Your task to perform on an android device: Search for "lg ultragear" on target.com, select the first entry, and add it to the cart. Image 0: 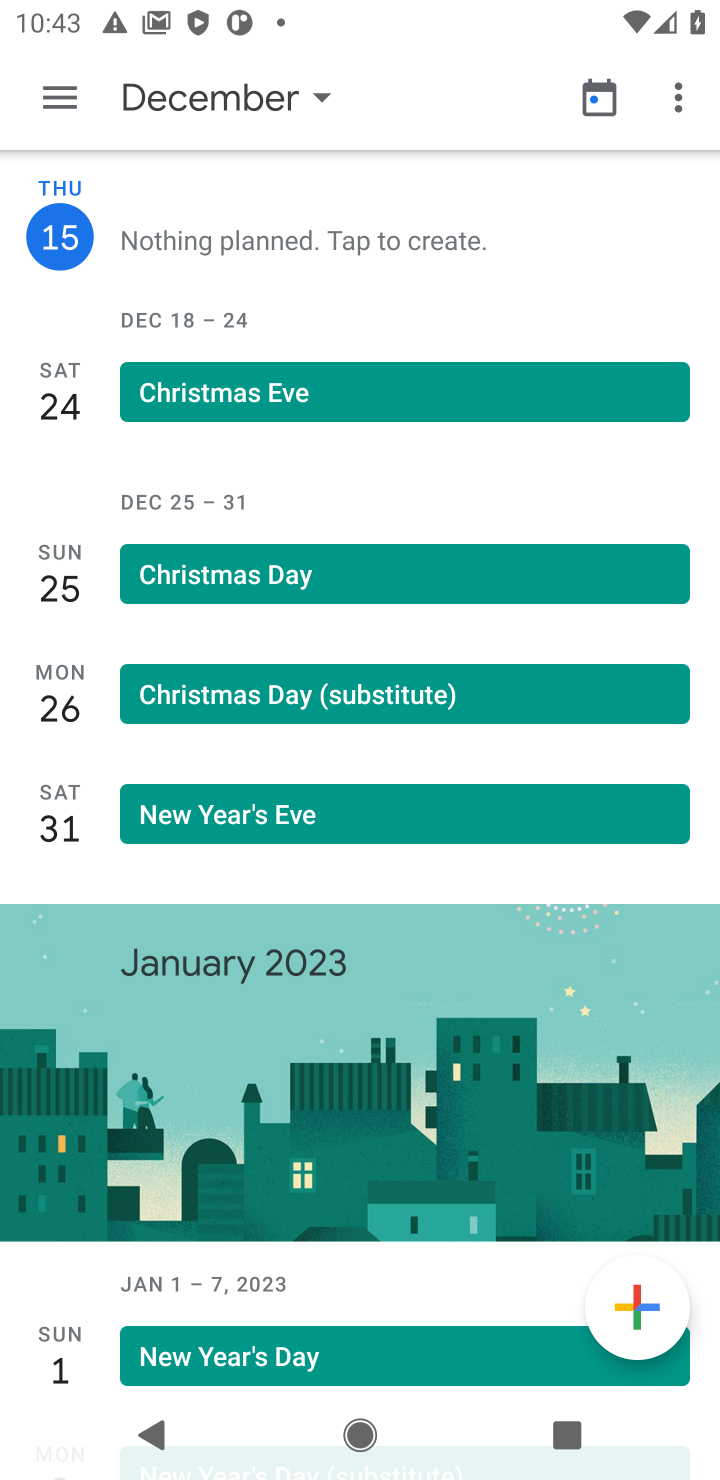
Step 0: press home button
Your task to perform on an android device: Search for "lg ultragear" on target.com, select the first entry, and add it to the cart. Image 1: 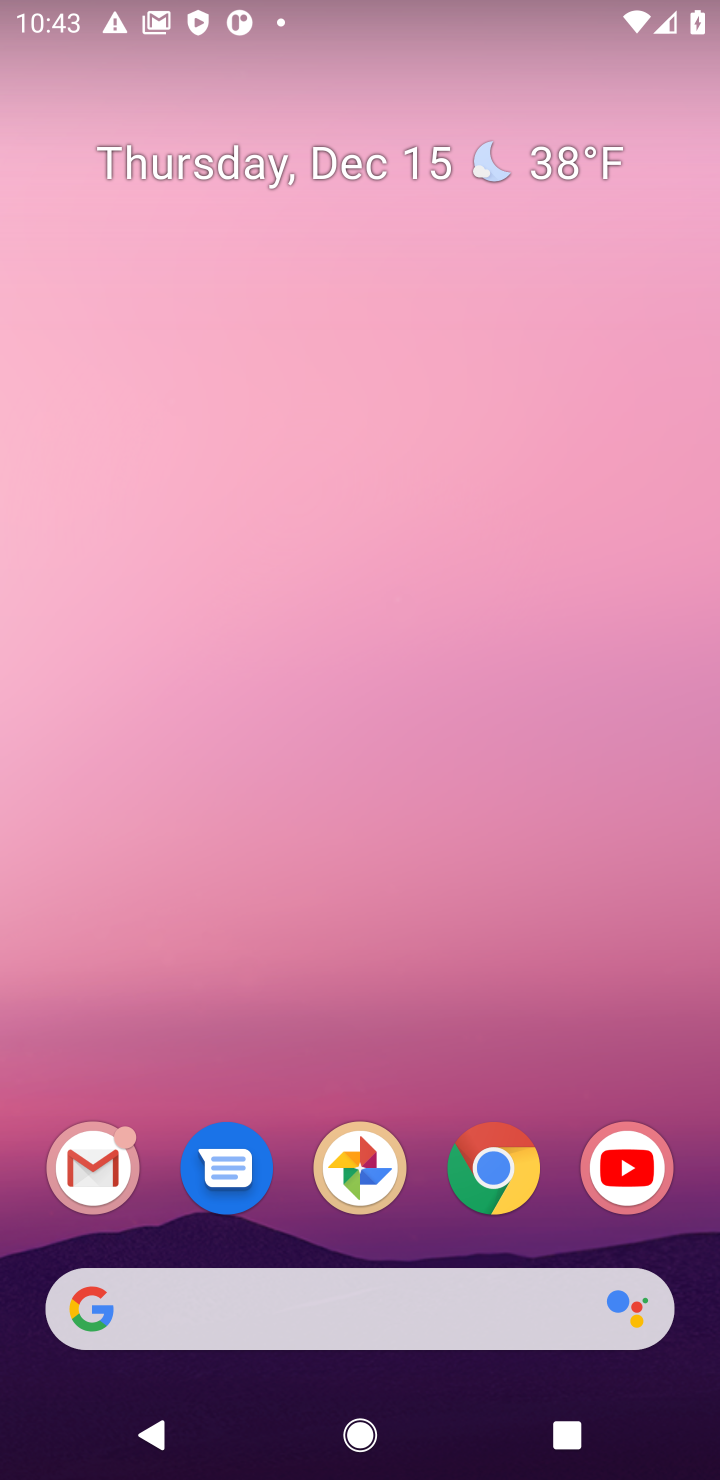
Step 1: click (478, 1159)
Your task to perform on an android device: Search for "lg ultragear" on target.com, select the first entry, and add it to the cart. Image 2: 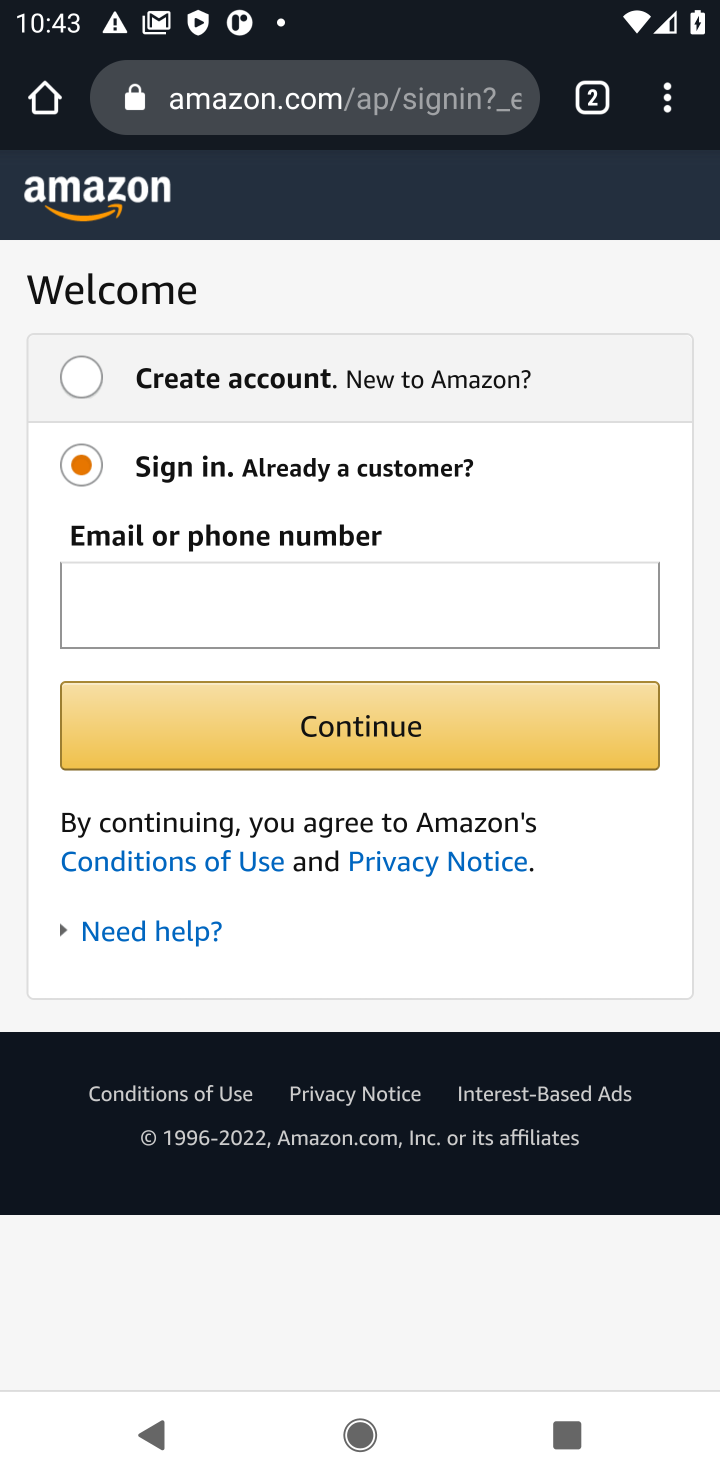
Step 2: click (356, 97)
Your task to perform on an android device: Search for "lg ultragear" on target.com, select the first entry, and add it to the cart. Image 3: 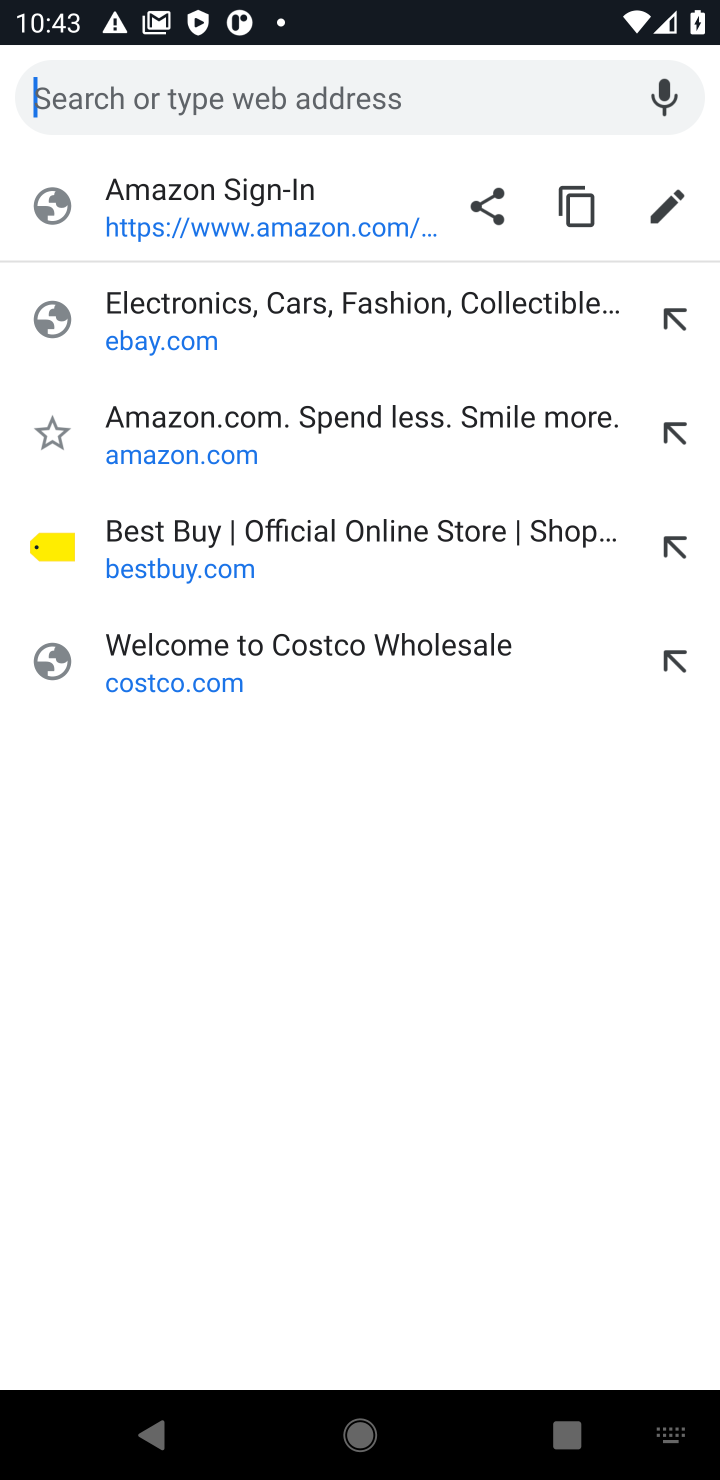
Step 3: type "target"
Your task to perform on an android device: Search for "lg ultragear" on target.com, select the first entry, and add it to the cart. Image 4: 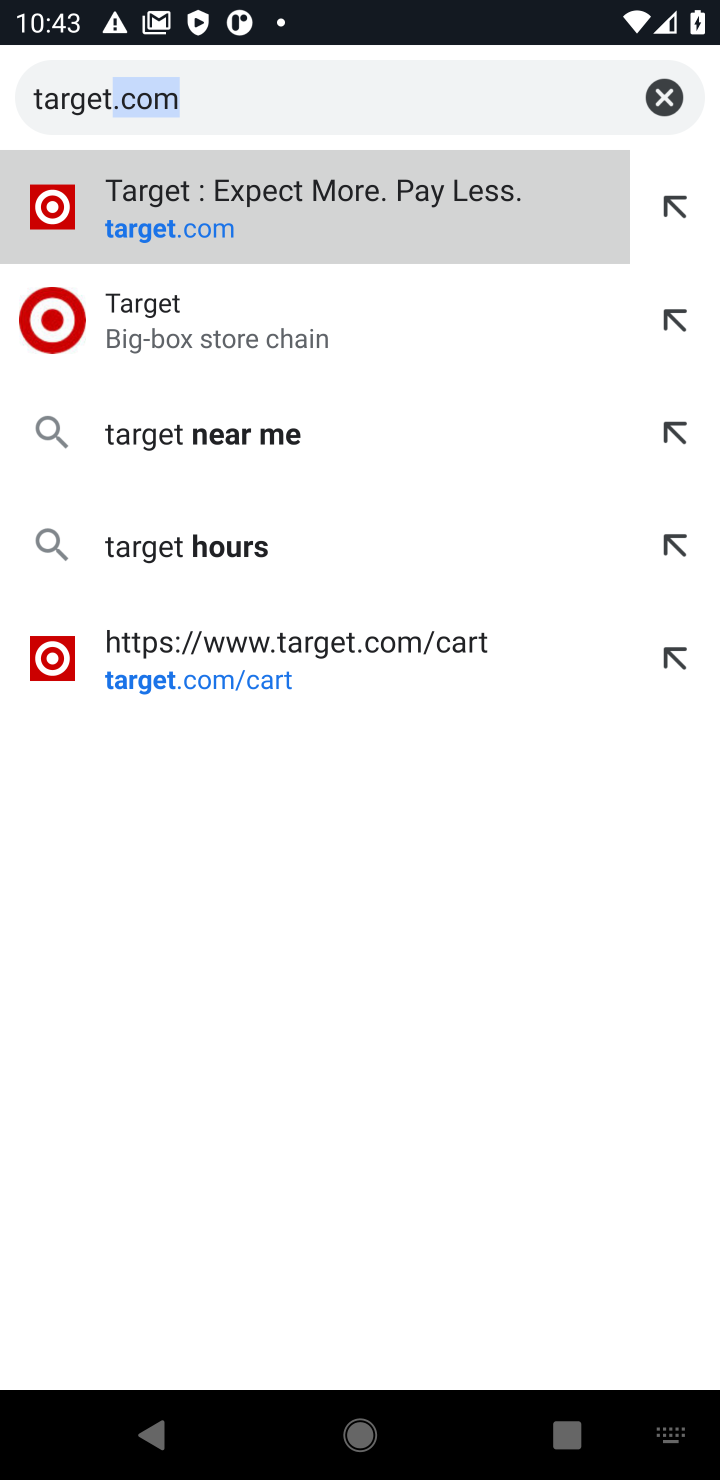
Step 4: click (245, 231)
Your task to perform on an android device: Search for "lg ultragear" on target.com, select the first entry, and add it to the cart. Image 5: 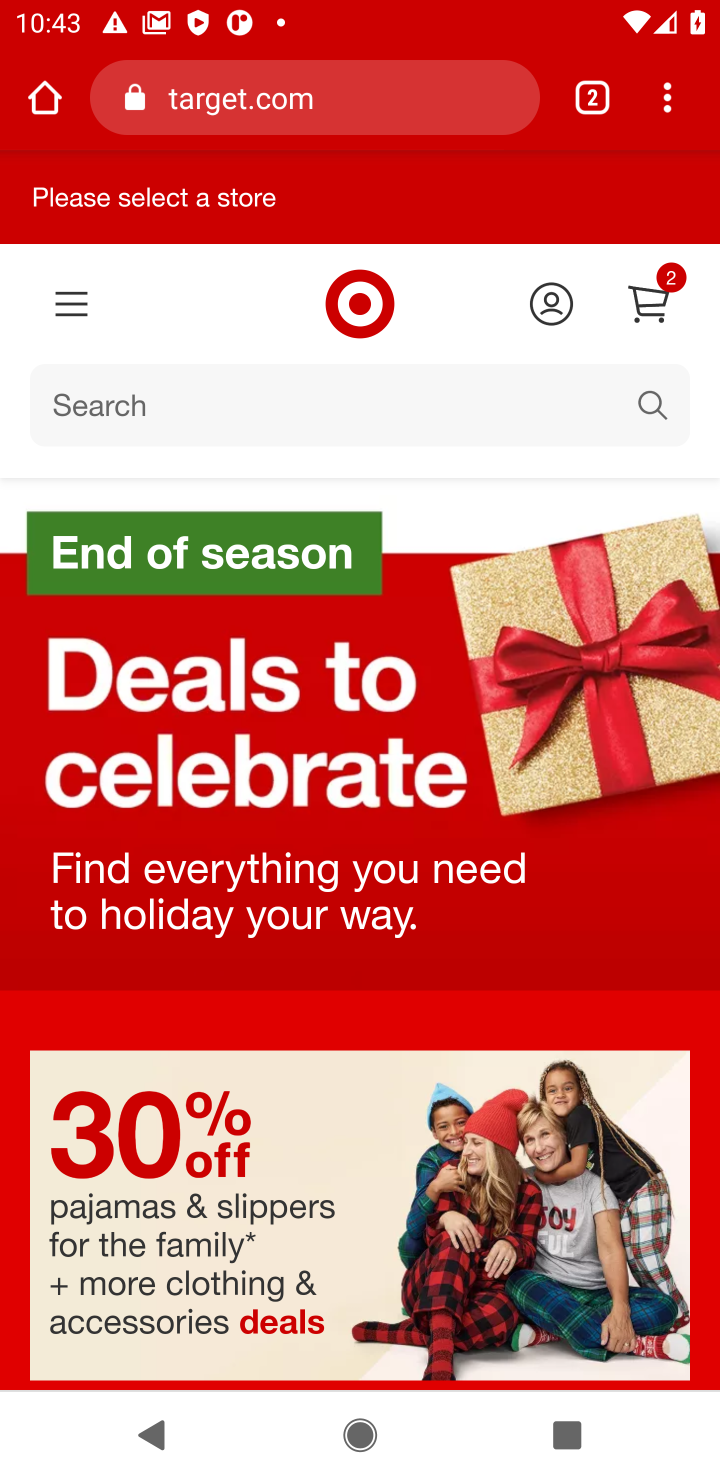
Step 5: click (376, 420)
Your task to perform on an android device: Search for "lg ultragear" on target.com, select the first entry, and add it to the cart. Image 6: 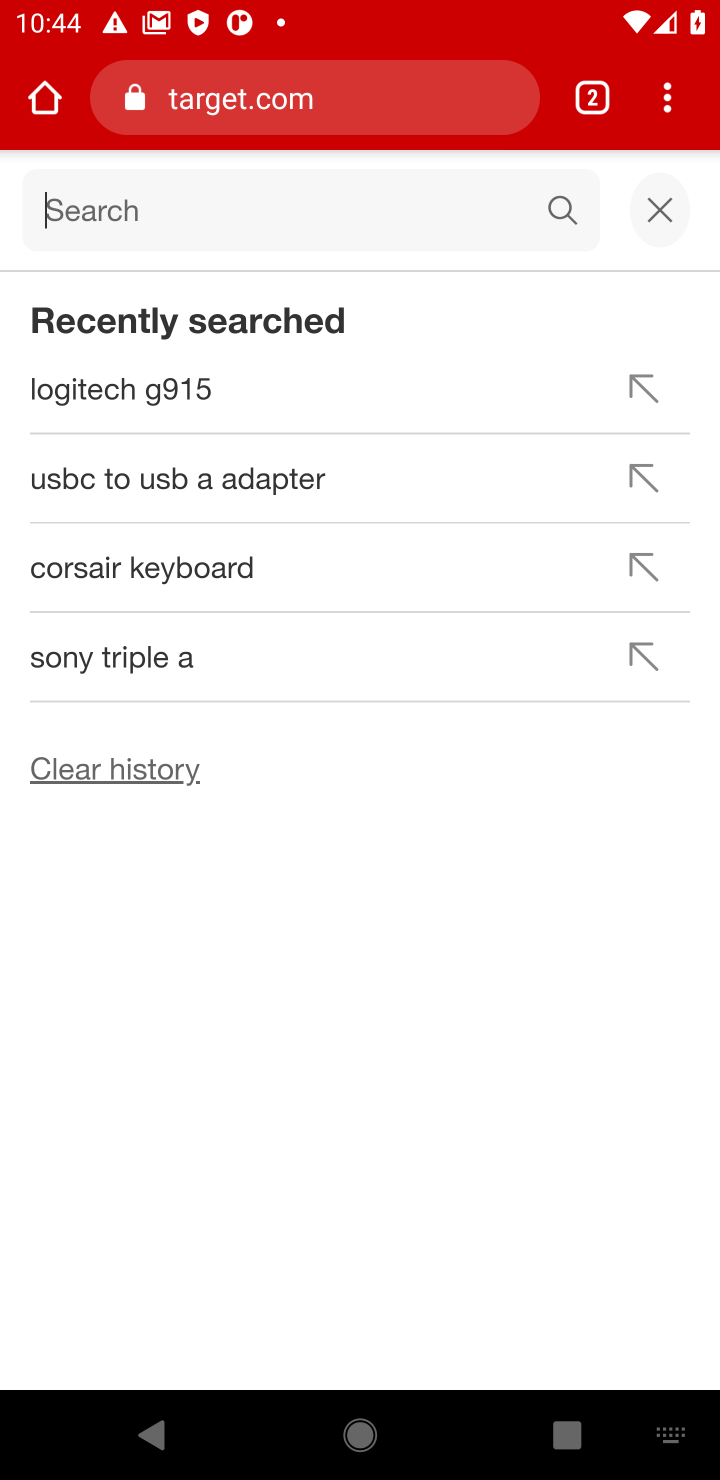
Step 6: type "lg ultragear"
Your task to perform on an android device: Search for "lg ultragear" on target.com, select the first entry, and add it to the cart. Image 7: 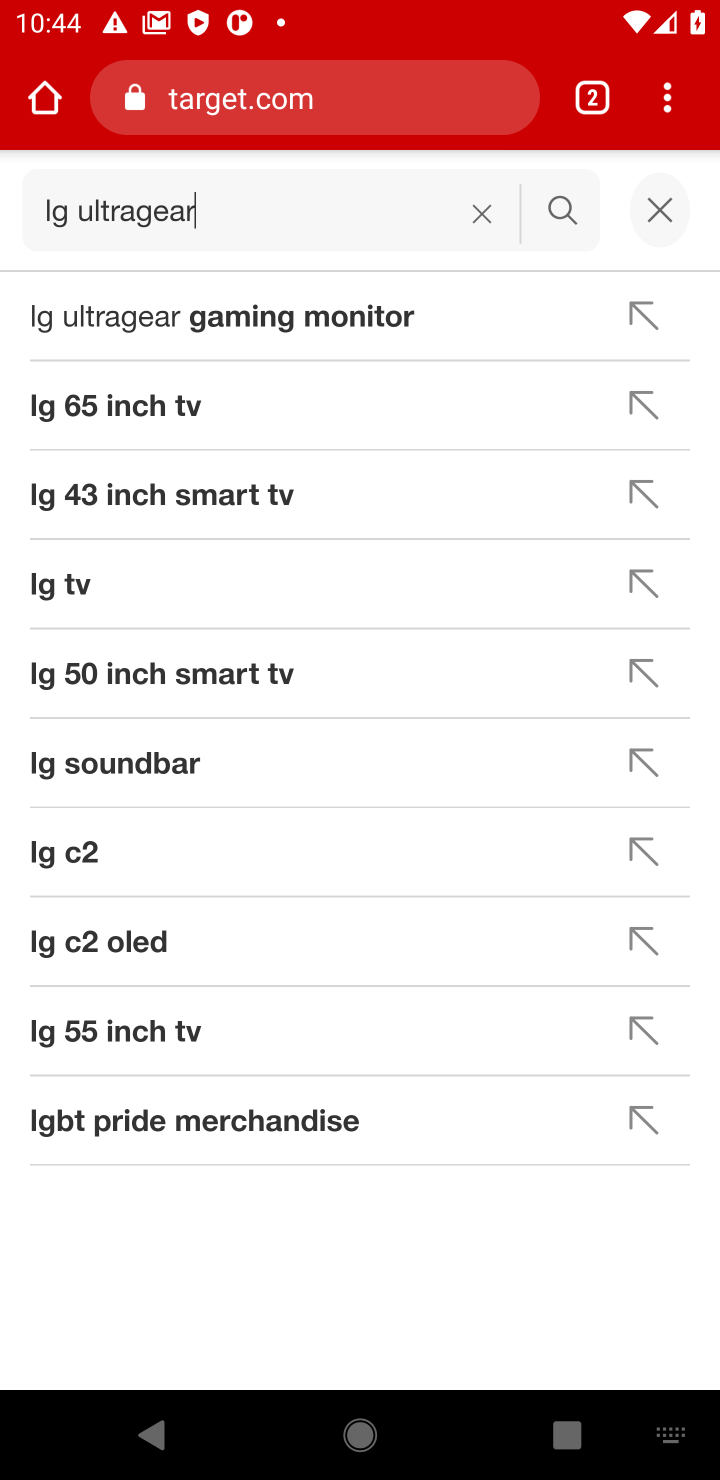
Step 7: click (288, 327)
Your task to perform on an android device: Search for "lg ultragear" on target.com, select the first entry, and add it to the cart. Image 8: 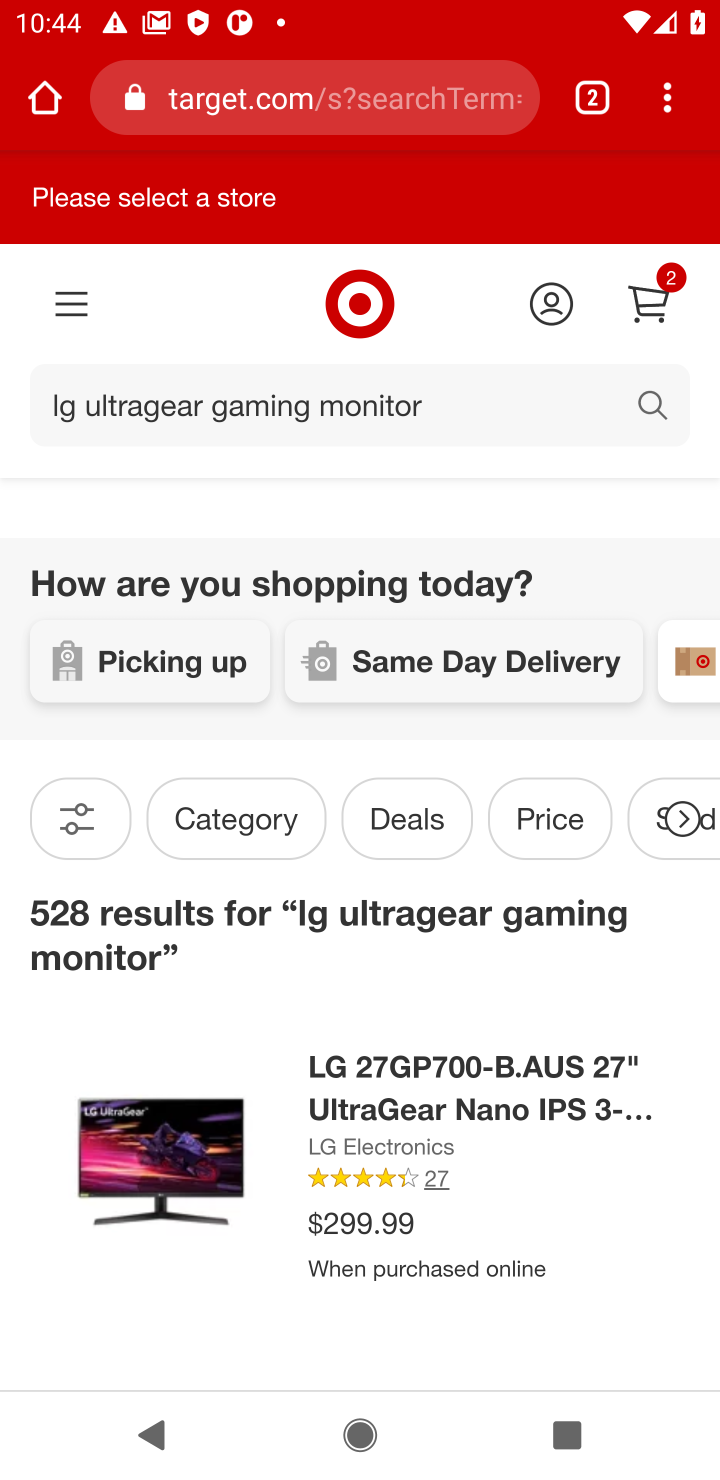
Step 8: click (447, 1154)
Your task to perform on an android device: Search for "lg ultragear" on target.com, select the first entry, and add it to the cart. Image 9: 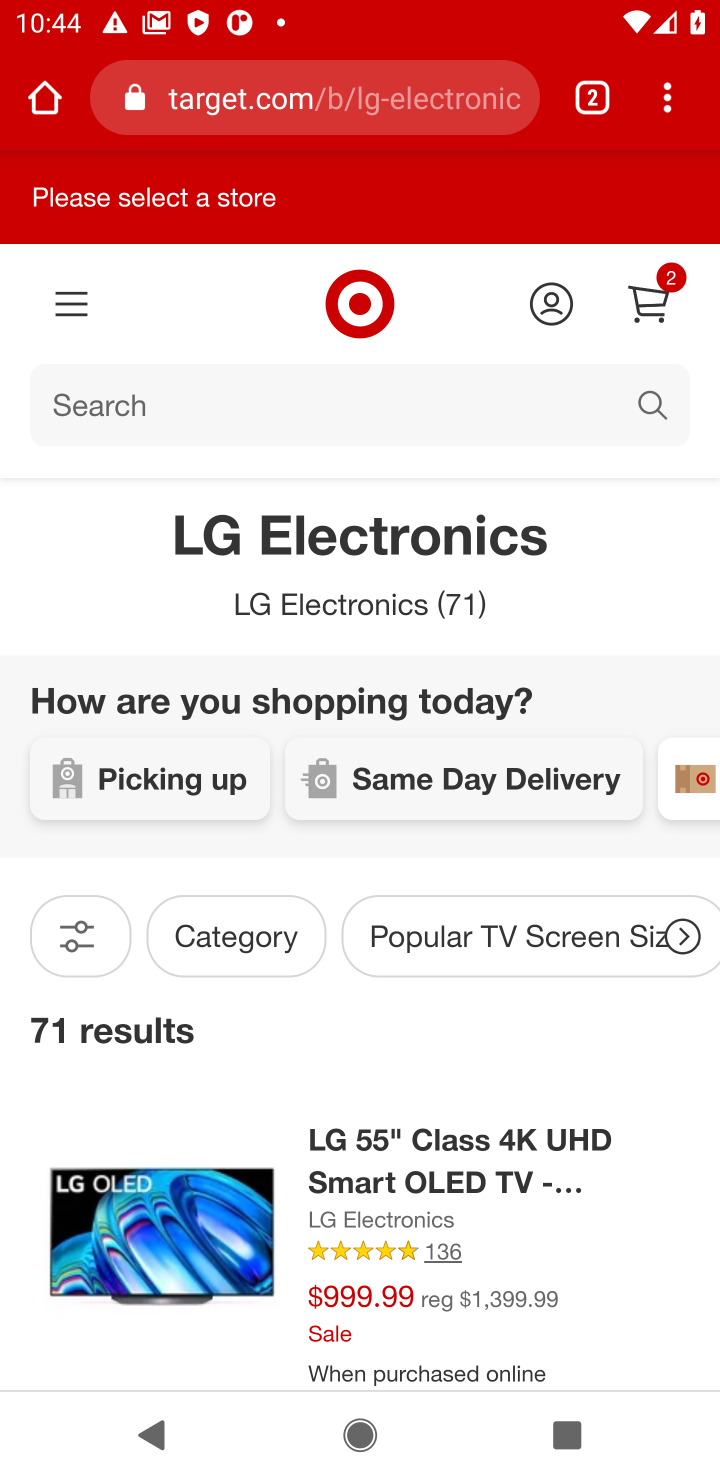
Step 9: click (469, 1157)
Your task to perform on an android device: Search for "lg ultragear" on target.com, select the first entry, and add it to the cart. Image 10: 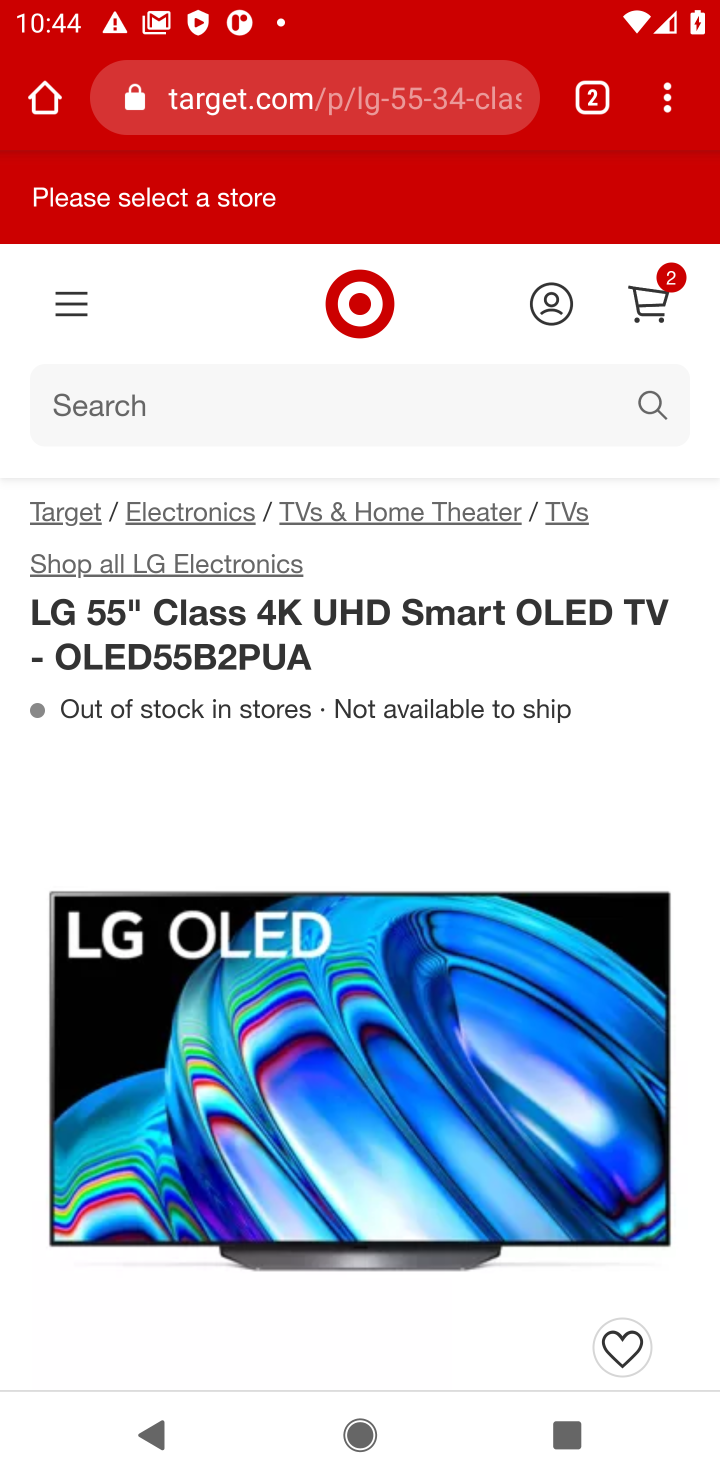
Step 10: drag from (478, 1242) to (479, 470)
Your task to perform on an android device: Search for "lg ultragear" on target.com, select the first entry, and add it to the cart. Image 11: 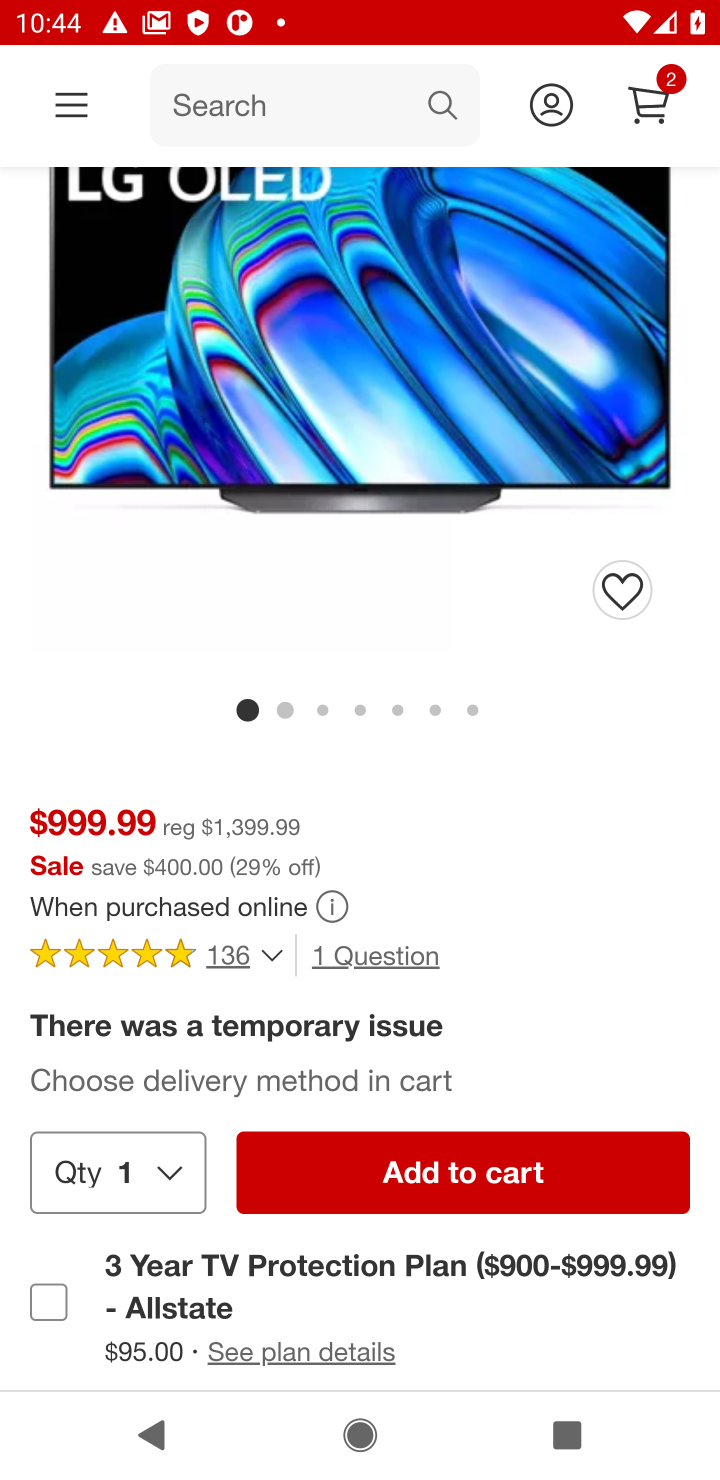
Step 11: click (444, 1176)
Your task to perform on an android device: Search for "lg ultragear" on target.com, select the first entry, and add it to the cart. Image 12: 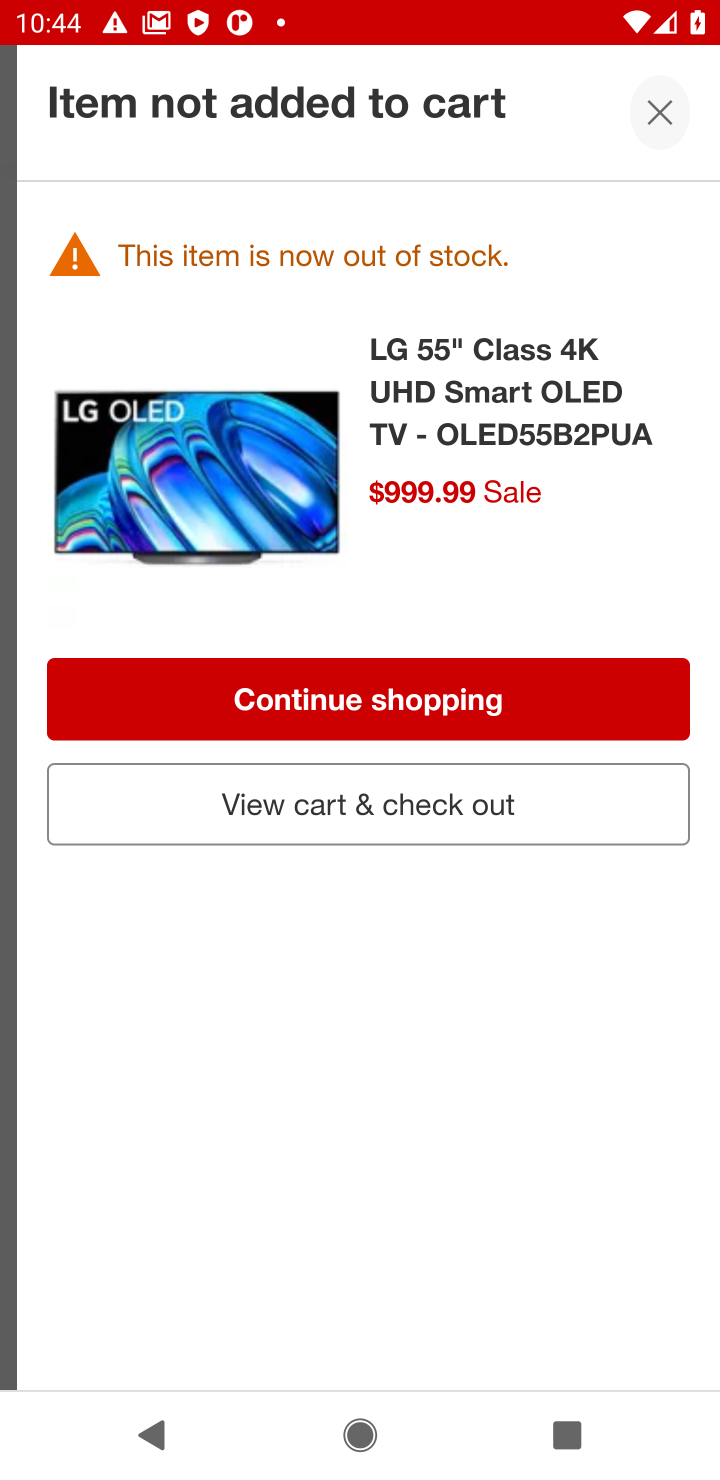
Step 12: click (390, 803)
Your task to perform on an android device: Search for "lg ultragear" on target.com, select the first entry, and add it to the cart. Image 13: 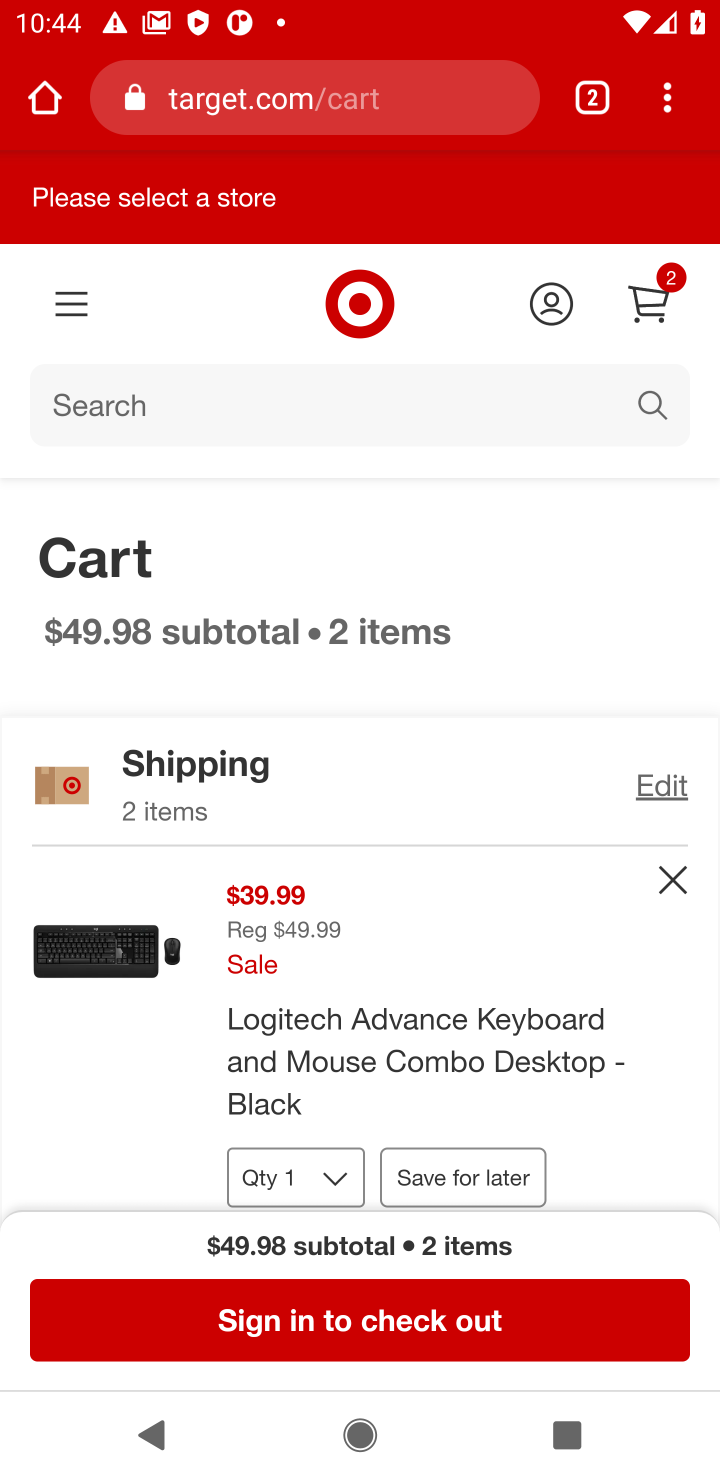
Step 13: click (346, 1316)
Your task to perform on an android device: Search for "lg ultragear" on target.com, select the first entry, and add it to the cart. Image 14: 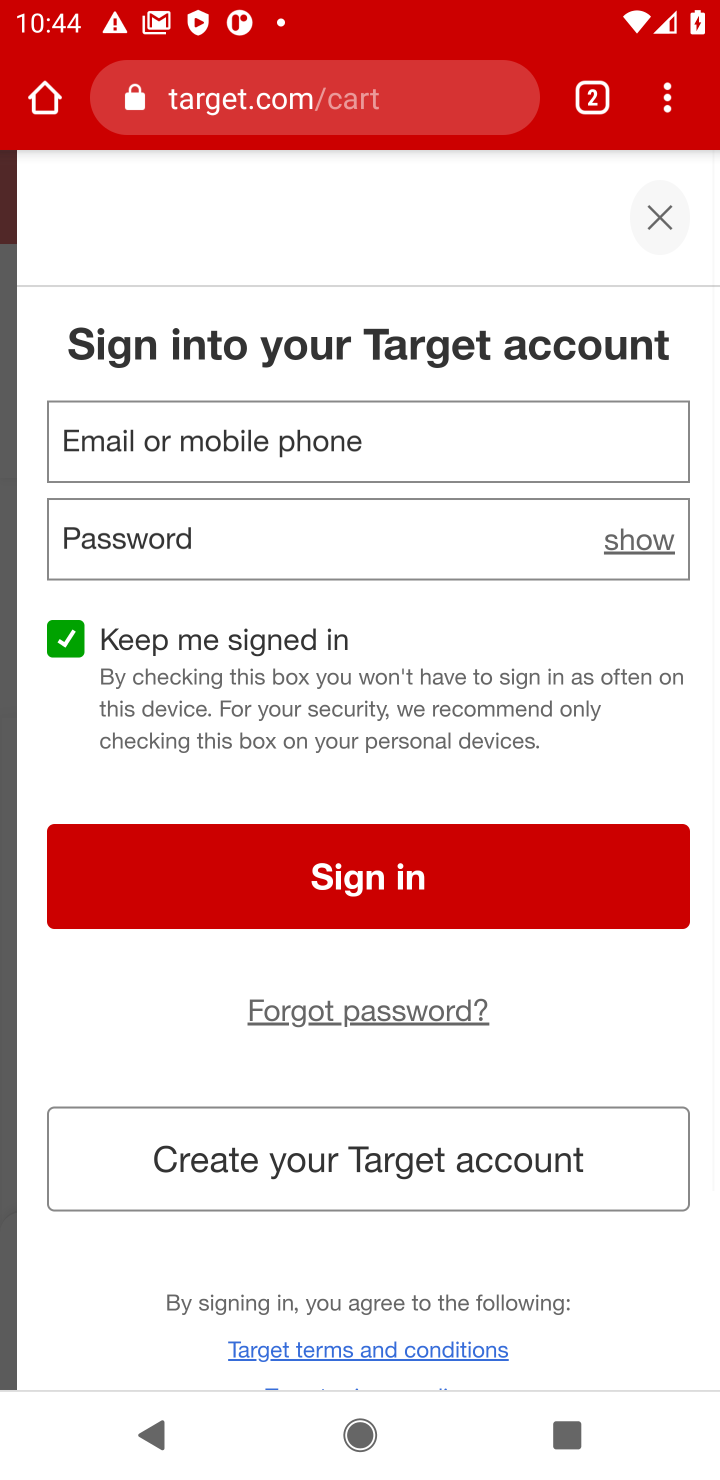
Step 14: task complete